Your task to perform on an android device: toggle airplane mode Image 0: 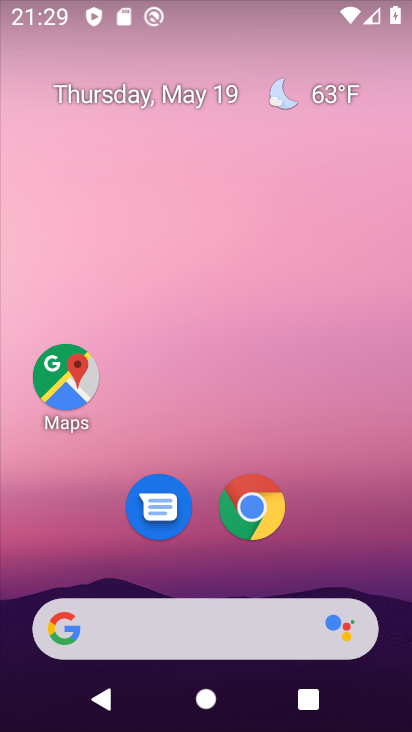
Step 0: drag from (368, 557) to (329, 107)
Your task to perform on an android device: toggle airplane mode Image 1: 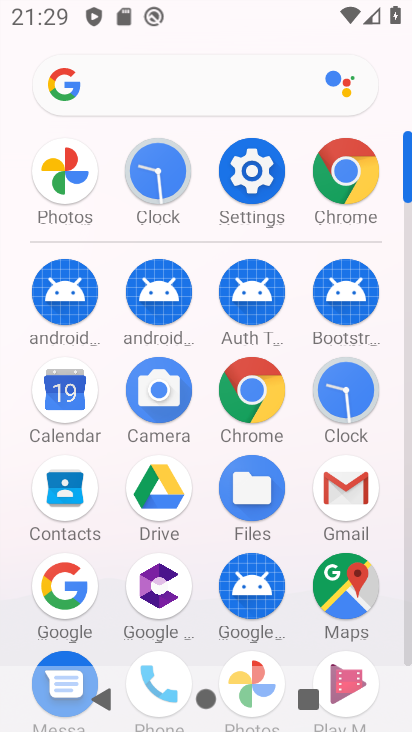
Step 1: click (262, 179)
Your task to perform on an android device: toggle airplane mode Image 2: 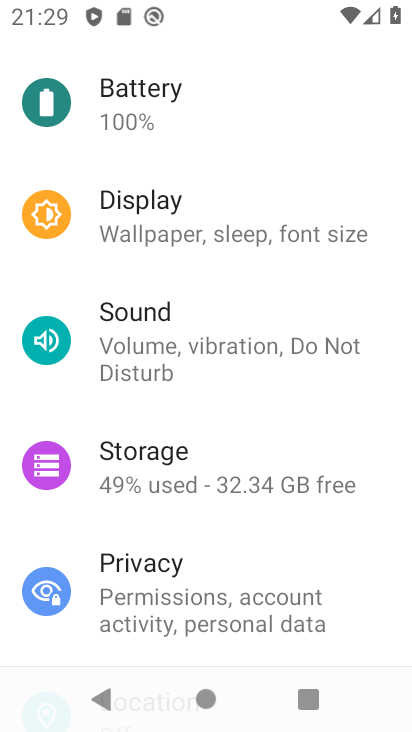
Step 2: drag from (262, 179) to (207, 671)
Your task to perform on an android device: toggle airplane mode Image 3: 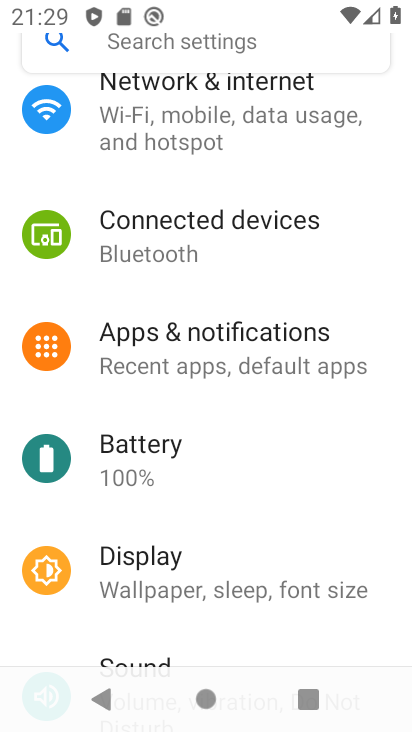
Step 3: click (207, 146)
Your task to perform on an android device: toggle airplane mode Image 4: 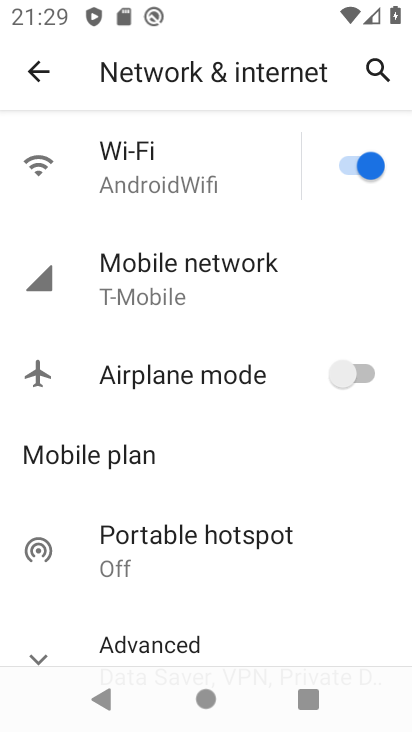
Step 4: click (338, 362)
Your task to perform on an android device: toggle airplane mode Image 5: 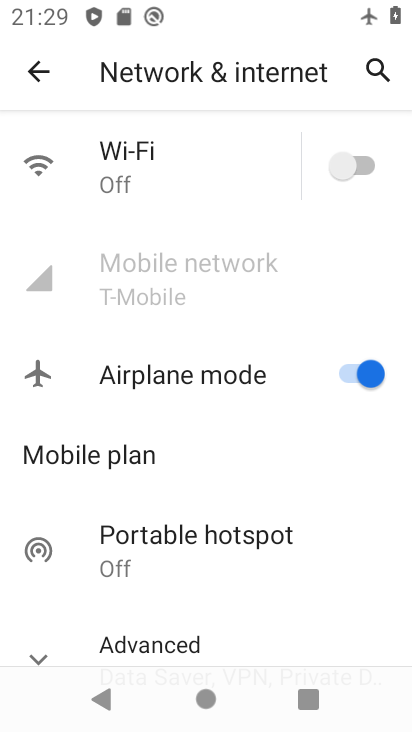
Step 5: task complete